Your task to perform on an android device: Add "apple airpods" to the cart on walmart.com Image 0: 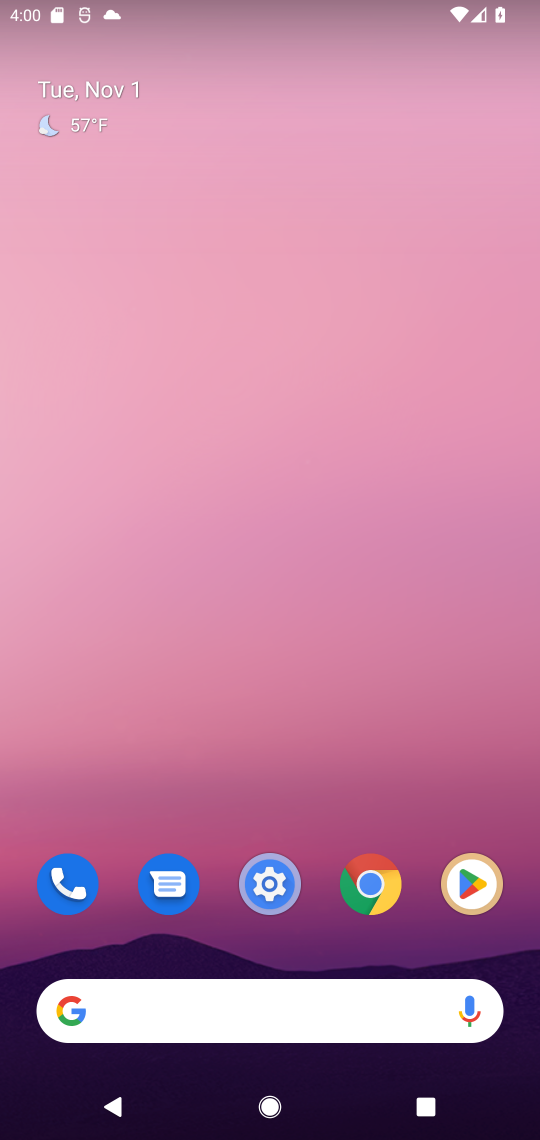
Step 0: press home button
Your task to perform on an android device: Add "apple airpods" to the cart on walmart.com Image 1: 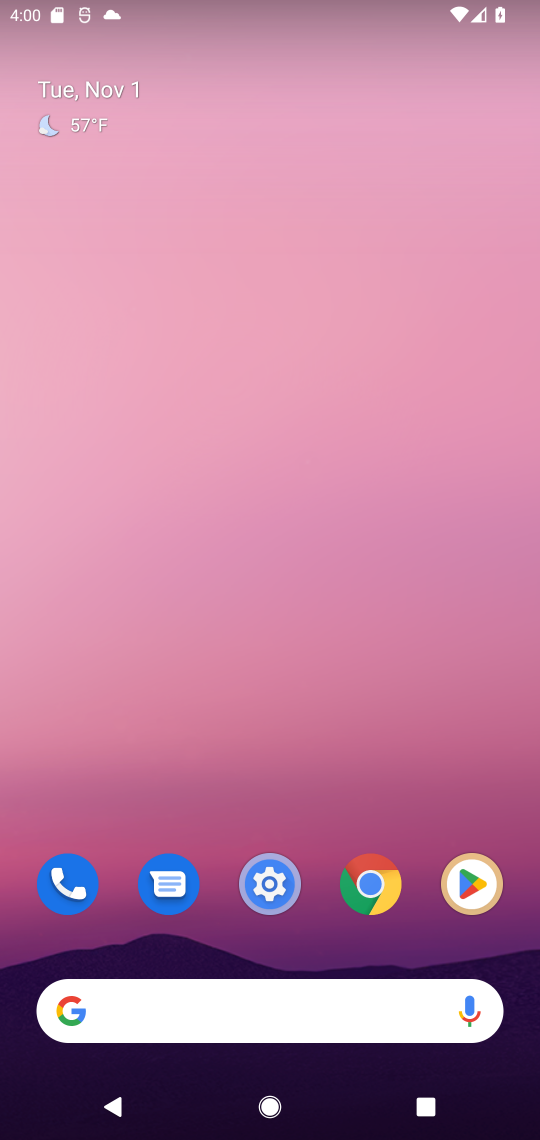
Step 1: click (103, 1013)
Your task to perform on an android device: Add "apple airpods" to the cart on walmart.com Image 2: 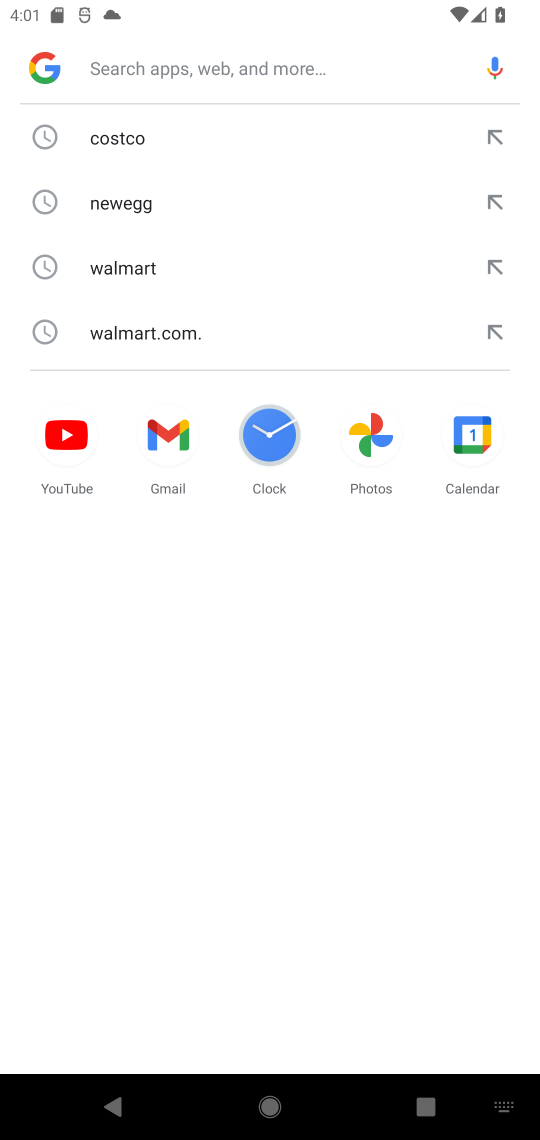
Step 2: type "walmart.com"
Your task to perform on an android device: Add "apple airpods" to the cart on walmart.com Image 3: 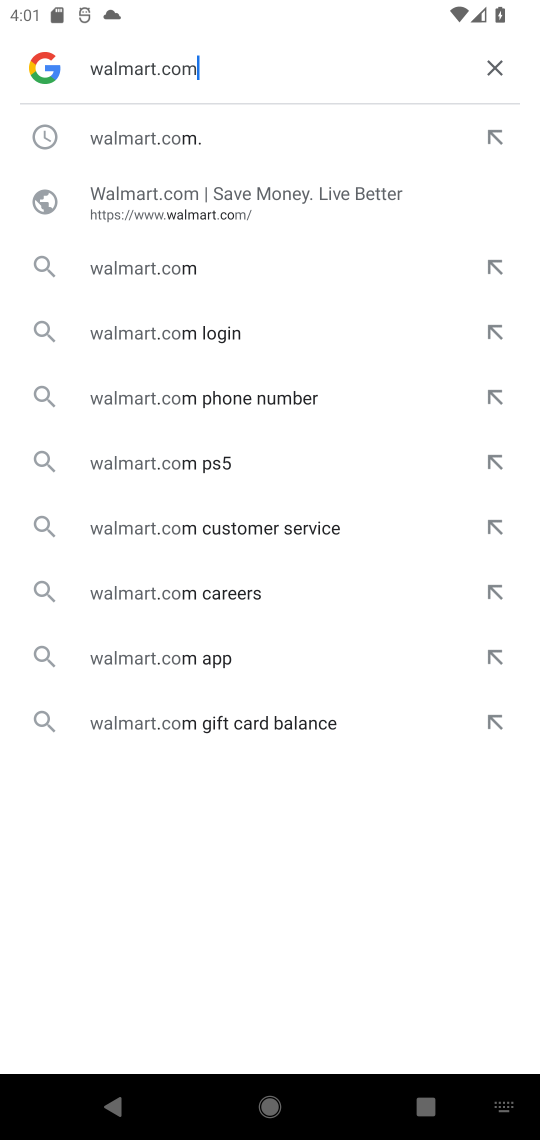
Step 3: press enter
Your task to perform on an android device: Add "apple airpods" to the cart on walmart.com Image 4: 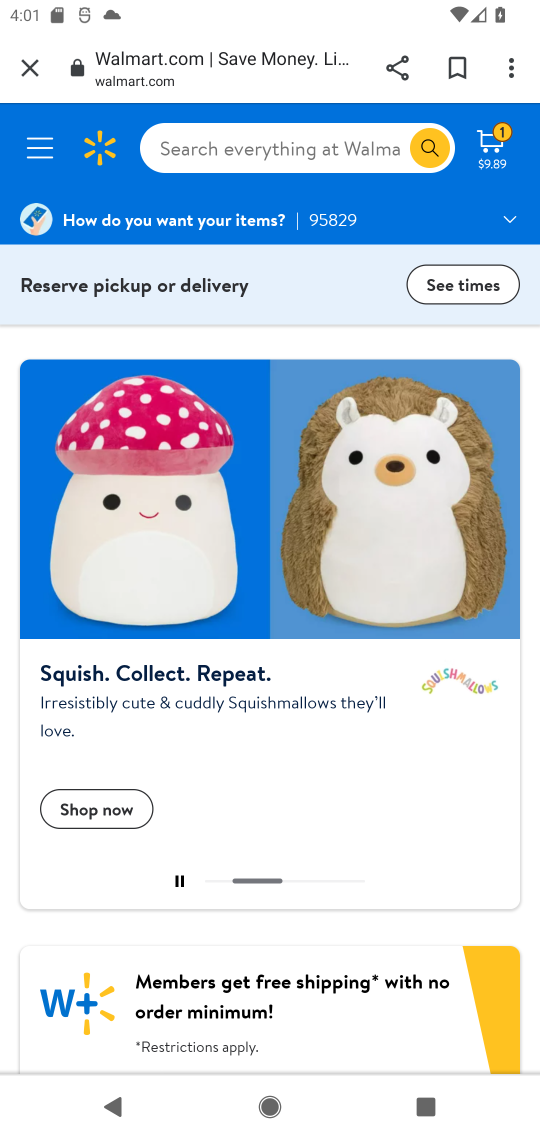
Step 4: click (183, 150)
Your task to perform on an android device: Add "apple airpods" to the cart on walmart.com Image 5: 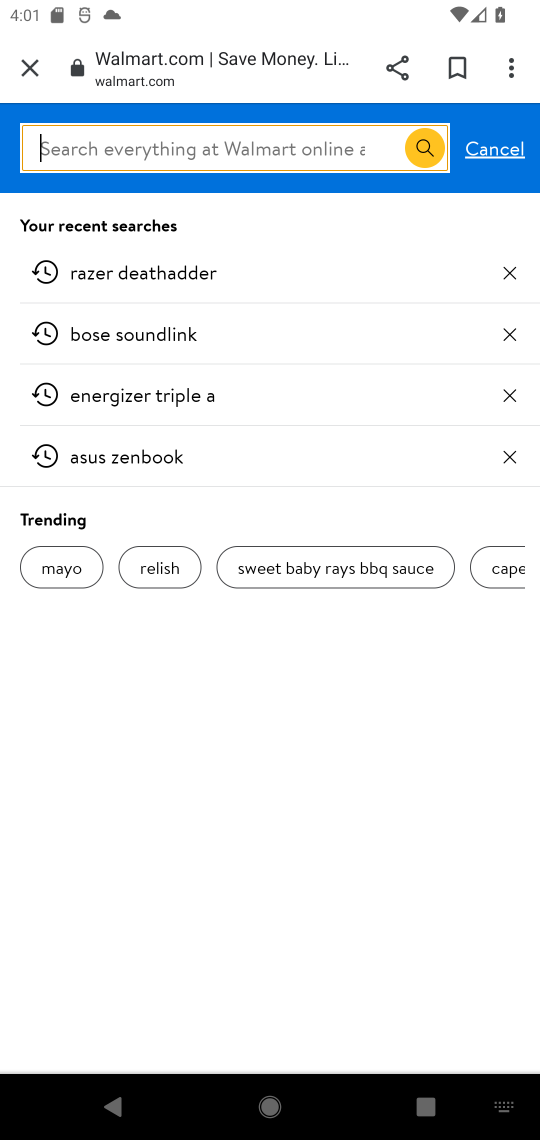
Step 5: type "apple airpods"
Your task to perform on an android device: Add "apple airpods" to the cart on walmart.com Image 6: 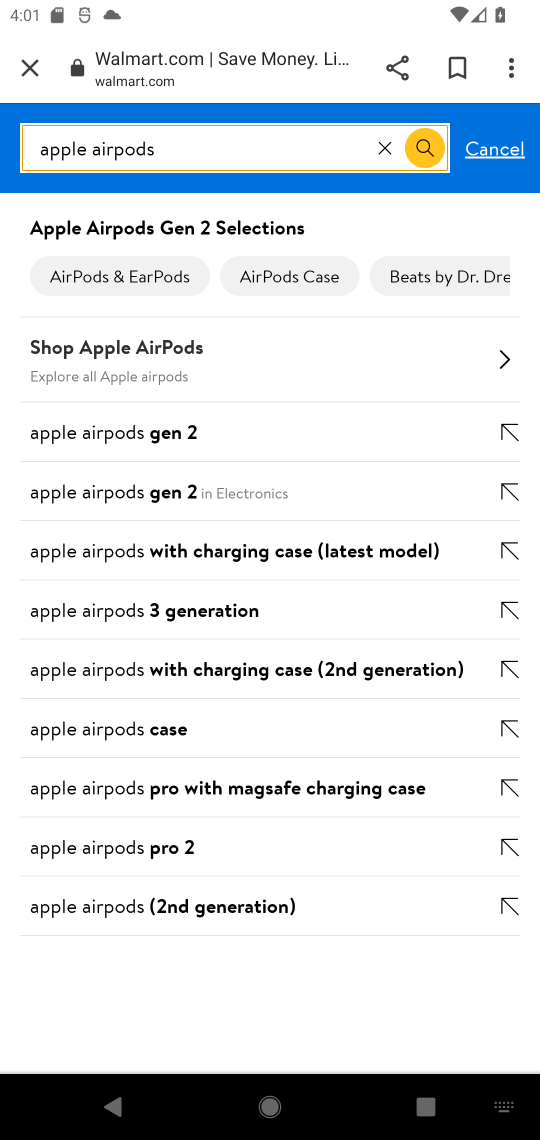
Step 6: click (420, 144)
Your task to perform on an android device: Add "apple airpods" to the cart on walmart.com Image 7: 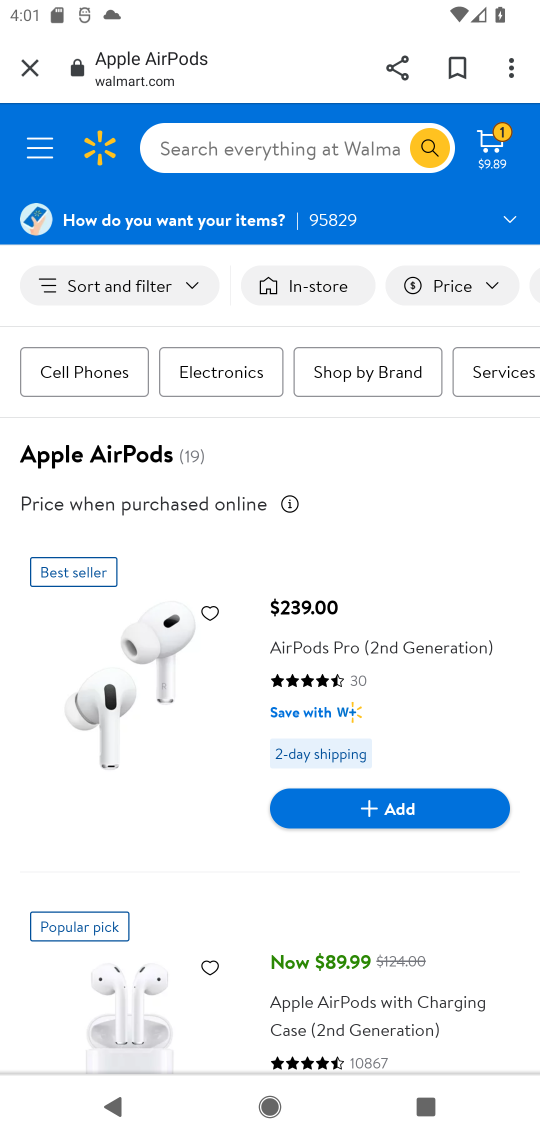
Step 7: drag from (362, 858) to (411, 558)
Your task to perform on an android device: Add "apple airpods" to the cart on walmart.com Image 8: 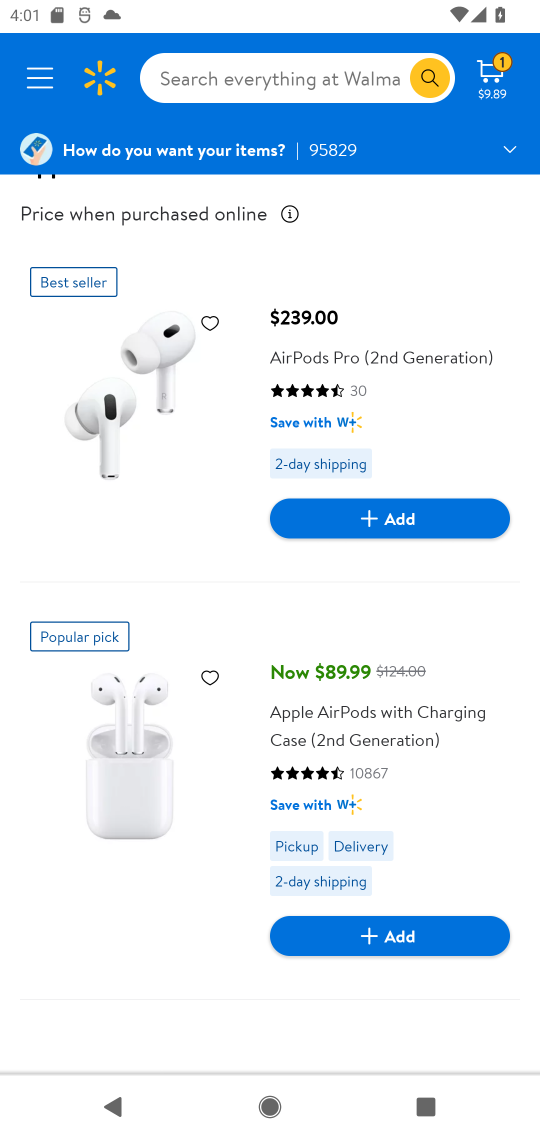
Step 8: click (394, 527)
Your task to perform on an android device: Add "apple airpods" to the cart on walmart.com Image 9: 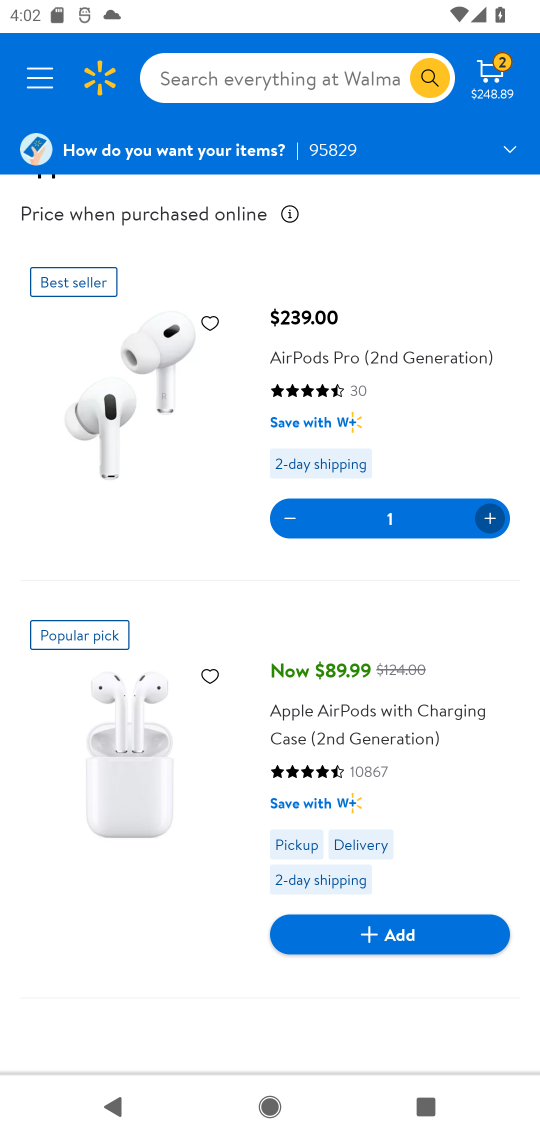
Step 9: task complete